Your task to perform on an android device: find photos in the google photos app Image 0: 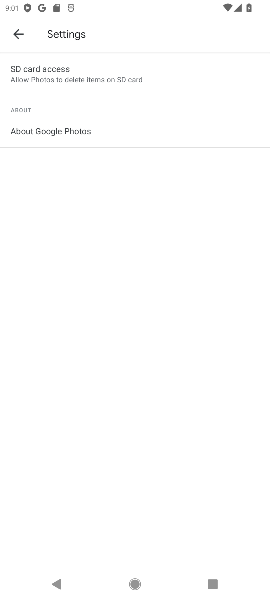
Step 0: press home button
Your task to perform on an android device: find photos in the google photos app Image 1: 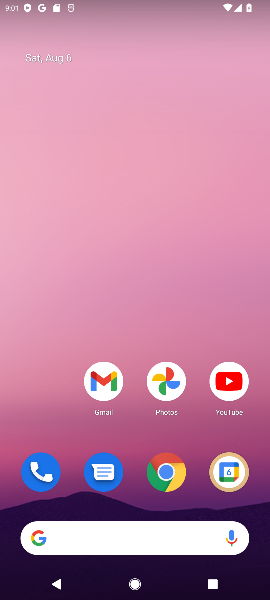
Step 1: click (161, 371)
Your task to perform on an android device: find photos in the google photos app Image 2: 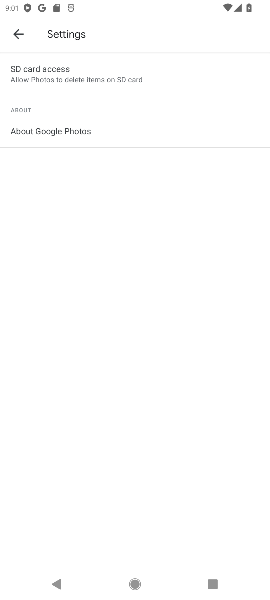
Step 2: click (18, 35)
Your task to perform on an android device: find photos in the google photos app Image 3: 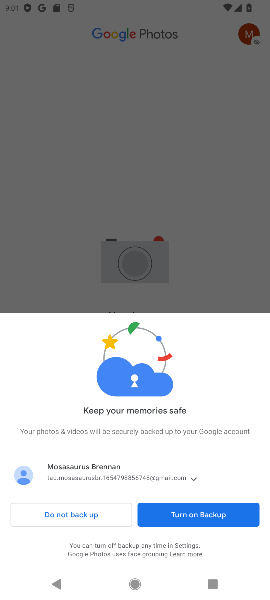
Step 3: click (219, 517)
Your task to perform on an android device: find photos in the google photos app Image 4: 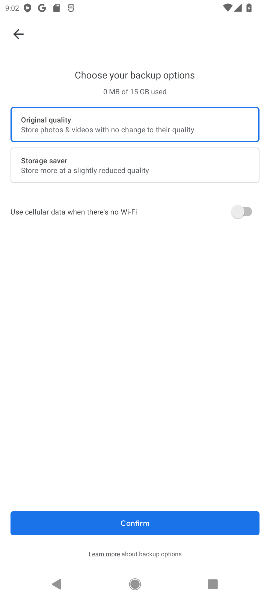
Step 4: click (112, 515)
Your task to perform on an android device: find photos in the google photos app Image 5: 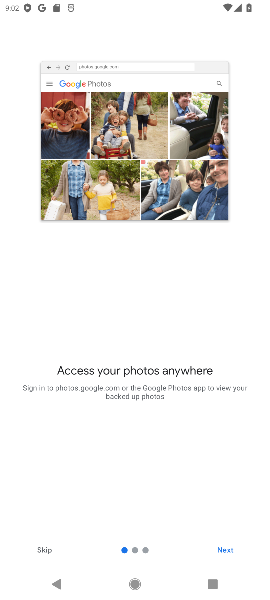
Step 5: click (235, 551)
Your task to perform on an android device: find photos in the google photos app Image 6: 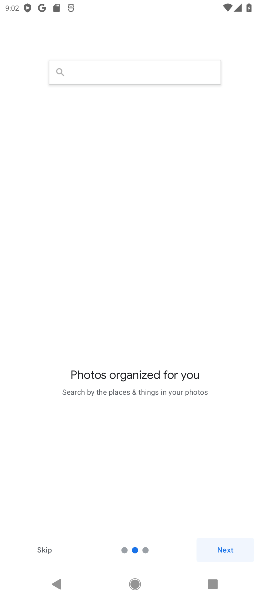
Step 6: click (235, 551)
Your task to perform on an android device: find photos in the google photos app Image 7: 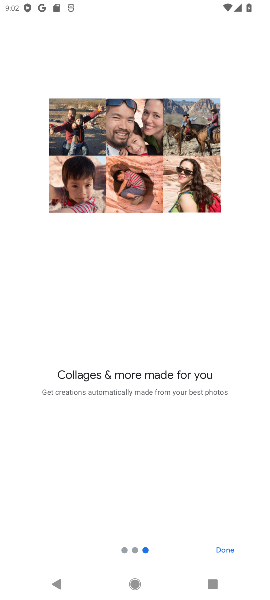
Step 7: click (235, 551)
Your task to perform on an android device: find photos in the google photos app Image 8: 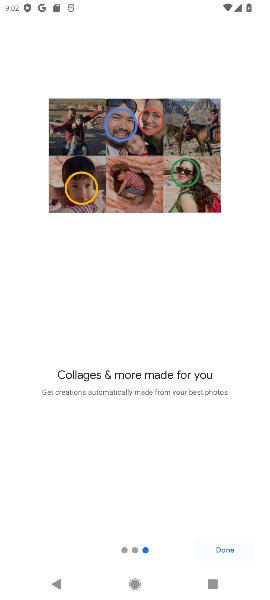
Step 8: click (235, 551)
Your task to perform on an android device: find photos in the google photos app Image 9: 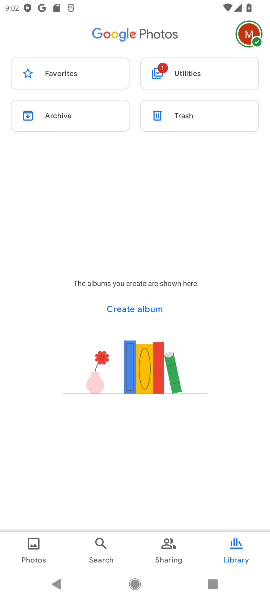
Step 9: click (34, 539)
Your task to perform on an android device: find photos in the google photos app Image 10: 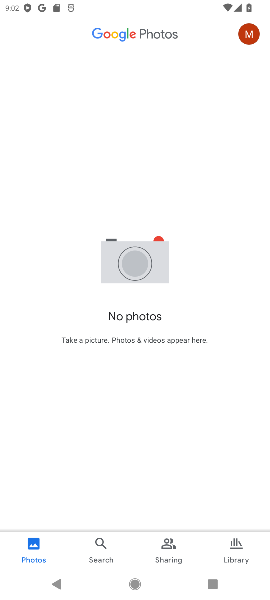
Step 10: task complete